Your task to perform on an android device: Go to internet settings Image 0: 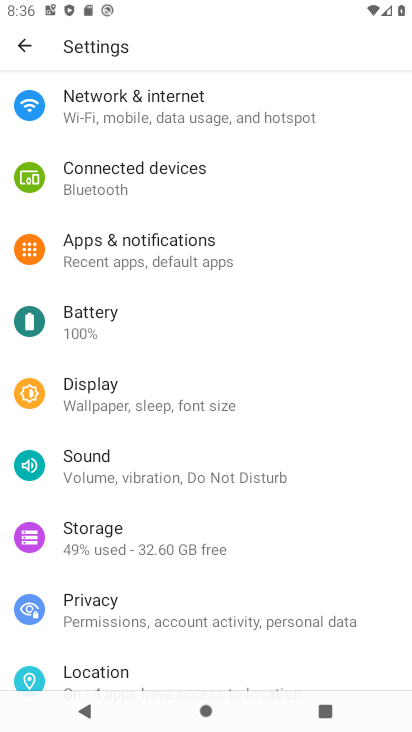
Step 0: click (230, 125)
Your task to perform on an android device: Go to internet settings Image 1: 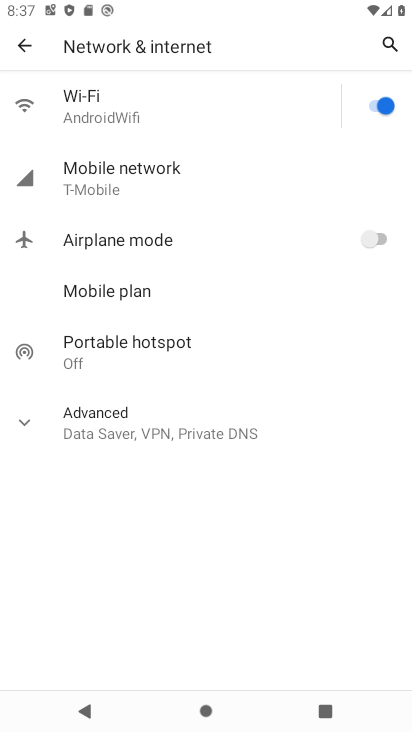
Step 1: task complete